Your task to perform on an android device: Open Google Chrome and click the shortcut for Amazon.com Image 0: 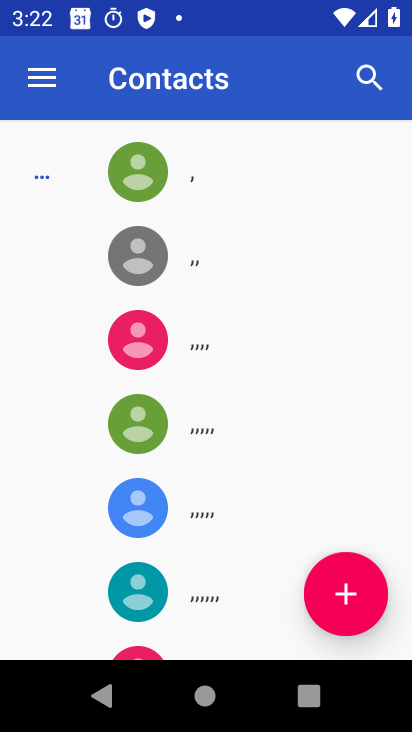
Step 0: press home button
Your task to perform on an android device: Open Google Chrome and click the shortcut for Amazon.com Image 1: 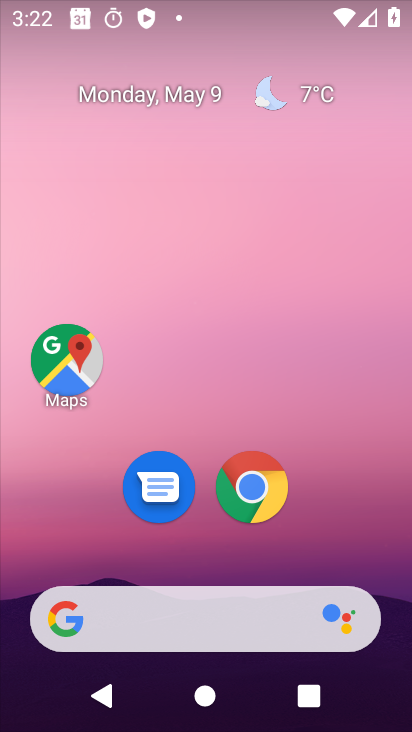
Step 1: drag from (301, 594) to (281, 27)
Your task to perform on an android device: Open Google Chrome and click the shortcut for Amazon.com Image 2: 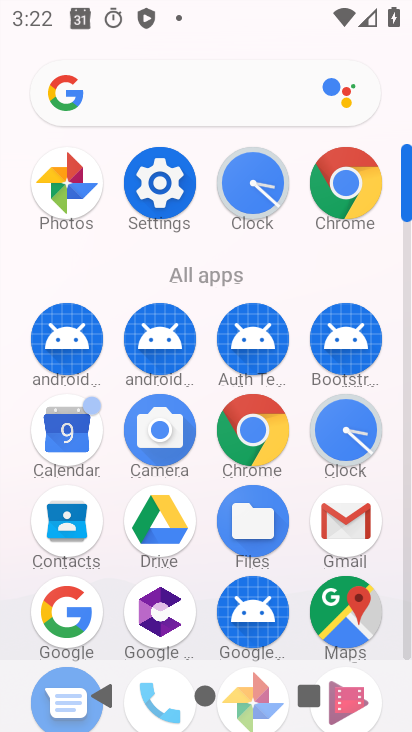
Step 2: click (247, 456)
Your task to perform on an android device: Open Google Chrome and click the shortcut for Amazon.com Image 3: 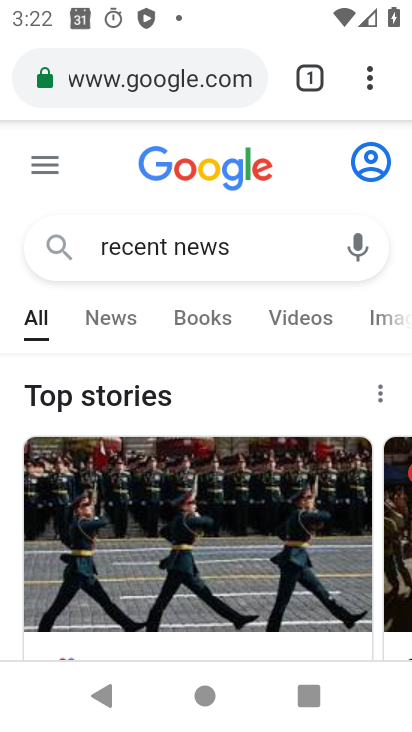
Step 3: drag from (369, 77) to (190, 157)
Your task to perform on an android device: Open Google Chrome and click the shortcut for Amazon.com Image 4: 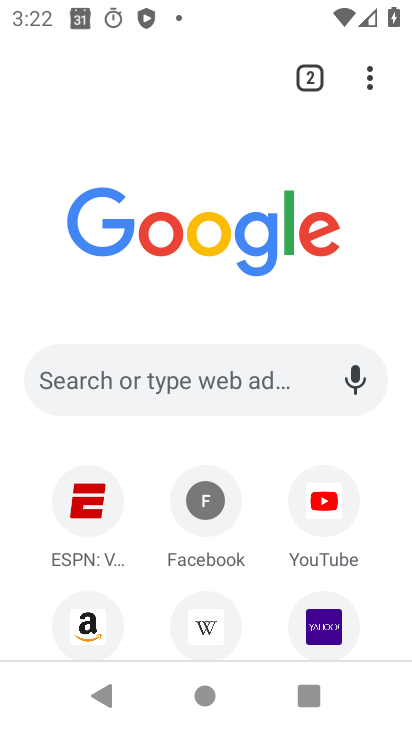
Step 4: click (82, 620)
Your task to perform on an android device: Open Google Chrome and click the shortcut for Amazon.com Image 5: 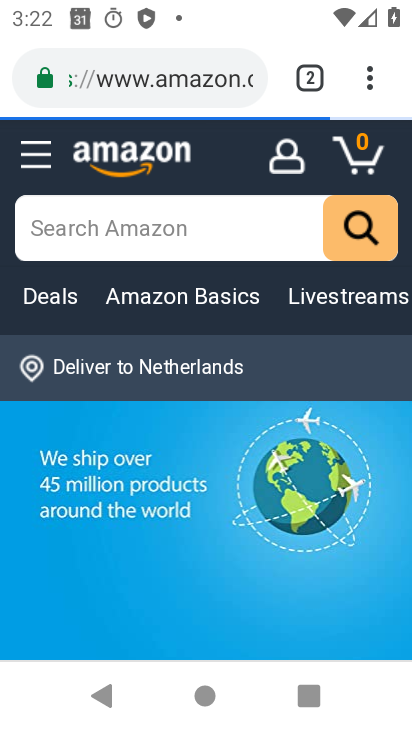
Step 5: drag from (377, 74) to (175, 404)
Your task to perform on an android device: Open Google Chrome and click the shortcut for Amazon.com Image 6: 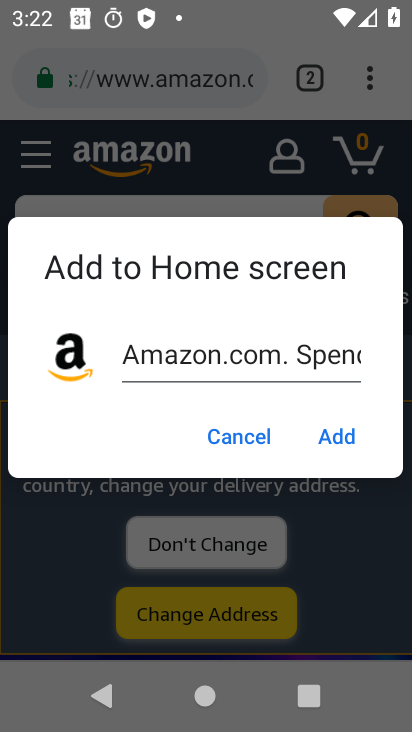
Step 6: click (341, 425)
Your task to perform on an android device: Open Google Chrome and click the shortcut for Amazon.com Image 7: 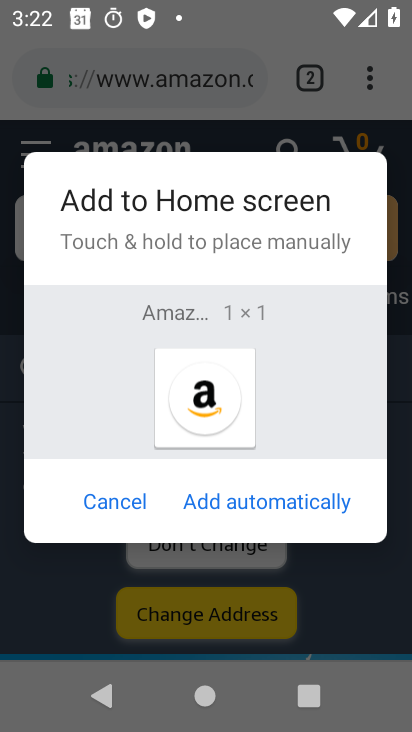
Step 7: click (282, 505)
Your task to perform on an android device: Open Google Chrome and click the shortcut for Amazon.com Image 8: 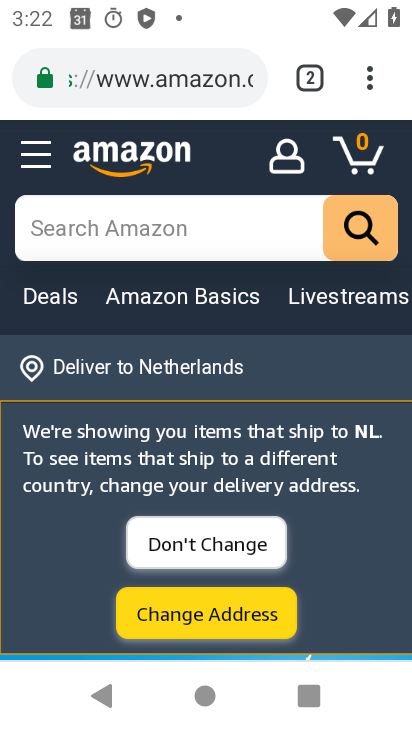
Step 8: task complete